Your task to perform on an android device: Open Google Maps and go to "Timeline" Image 0: 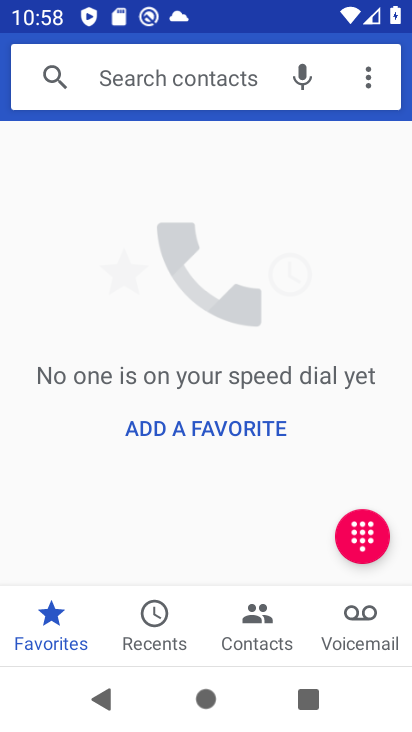
Step 0: press home button
Your task to perform on an android device: Open Google Maps and go to "Timeline" Image 1: 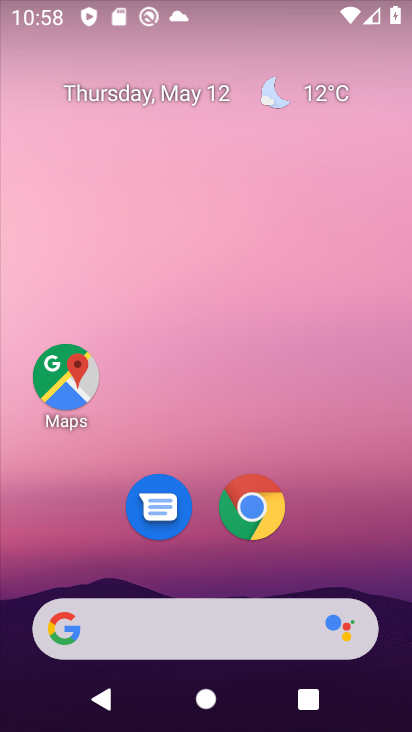
Step 1: click (70, 380)
Your task to perform on an android device: Open Google Maps and go to "Timeline" Image 2: 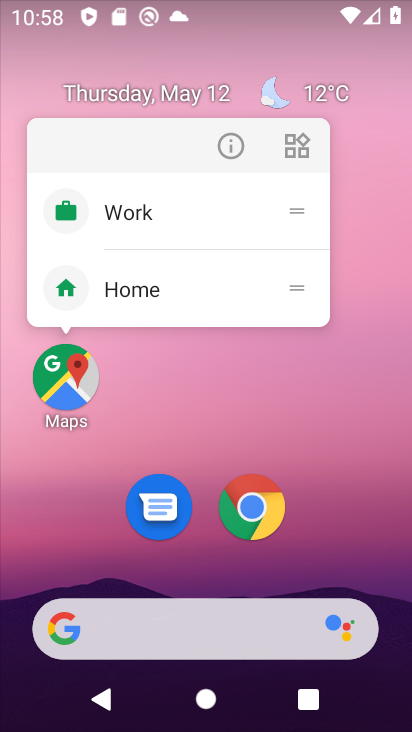
Step 2: click (70, 380)
Your task to perform on an android device: Open Google Maps and go to "Timeline" Image 3: 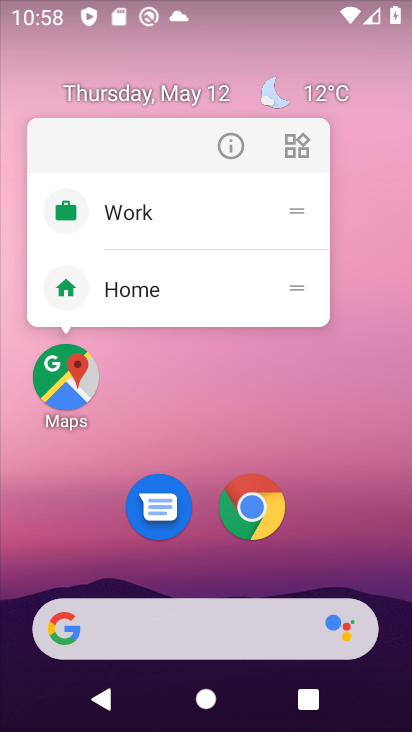
Step 3: click (70, 380)
Your task to perform on an android device: Open Google Maps and go to "Timeline" Image 4: 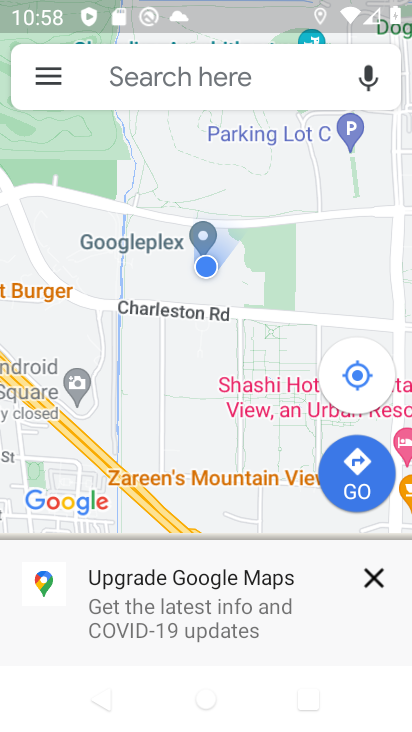
Step 4: click (370, 585)
Your task to perform on an android device: Open Google Maps and go to "Timeline" Image 5: 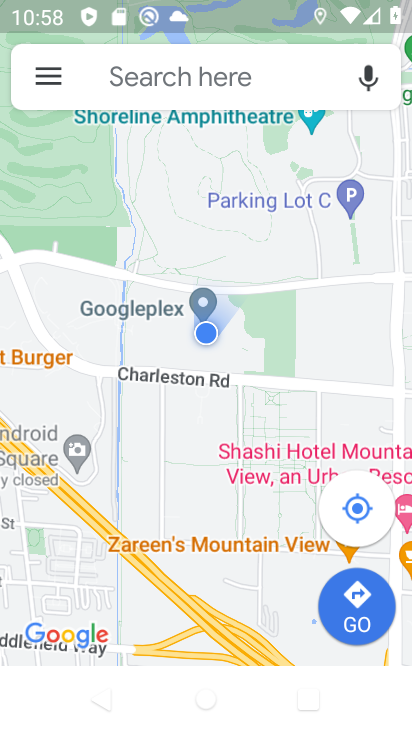
Step 5: click (50, 68)
Your task to perform on an android device: Open Google Maps and go to "Timeline" Image 6: 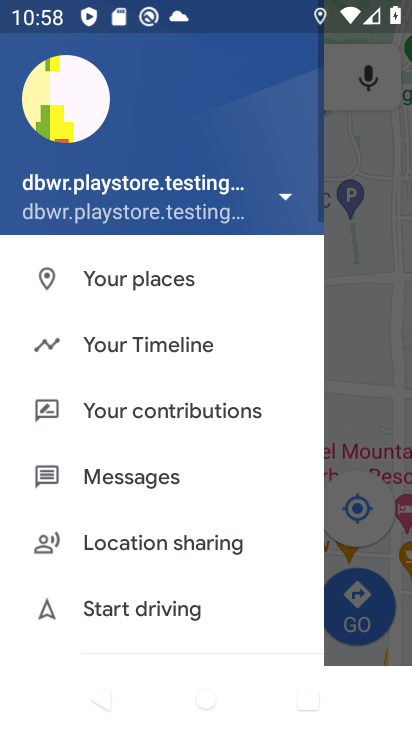
Step 6: click (131, 335)
Your task to perform on an android device: Open Google Maps and go to "Timeline" Image 7: 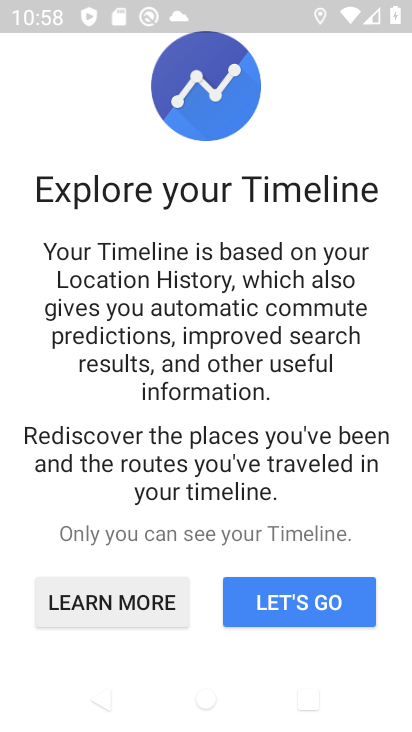
Step 7: click (279, 616)
Your task to perform on an android device: Open Google Maps and go to "Timeline" Image 8: 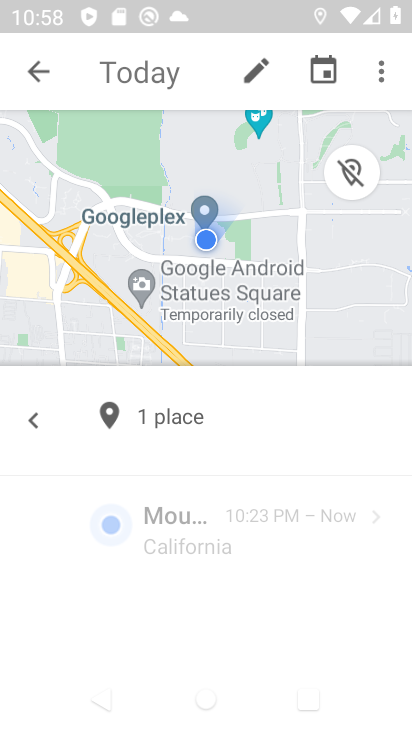
Step 8: task complete